Your task to perform on an android device: Go to CNN.com Image 0: 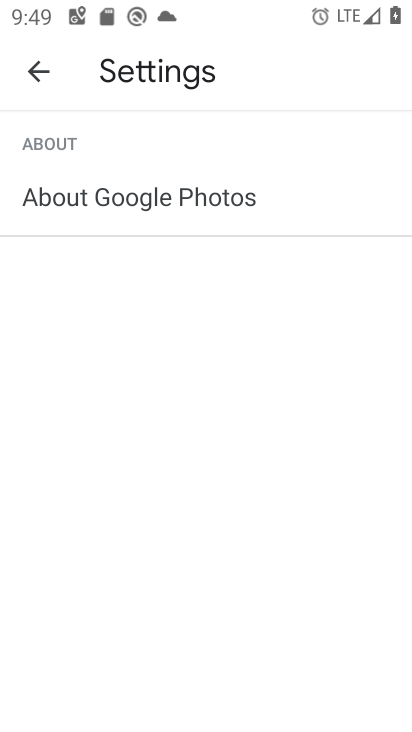
Step 0: press home button
Your task to perform on an android device: Go to CNN.com Image 1: 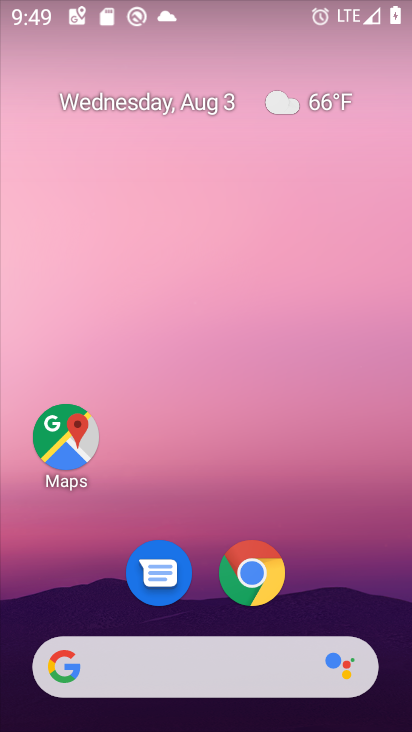
Step 1: click (253, 572)
Your task to perform on an android device: Go to CNN.com Image 2: 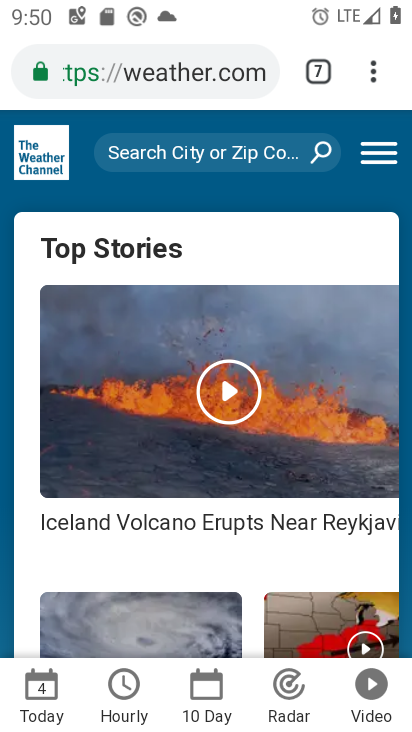
Step 2: click (202, 75)
Your task to perform on an android device: Go to CNN.com Image 3: 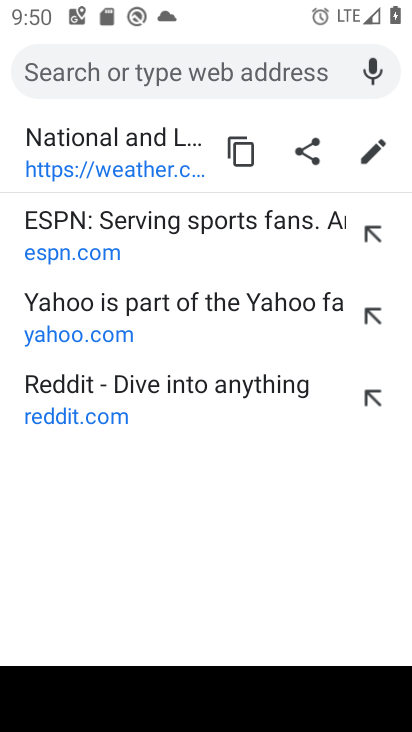
Step 3: type "cnn.com"
Your task to perform on an android device: Go to CNN.com Image 4: 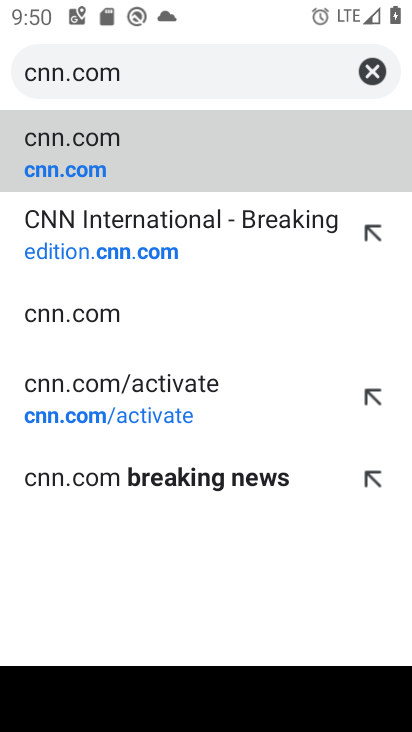
Step 4: click (75, 175)
Your task to perform on an android device: Go to CNN.com Image 5: 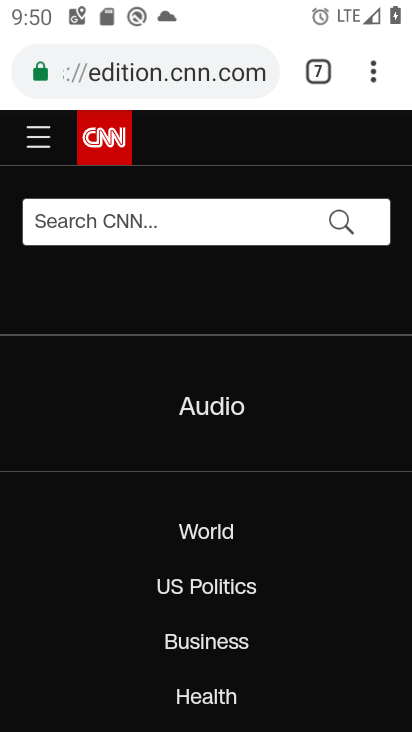
Step 5: task complete